Your task to perform on an android device: Set the phone to "Do not disturb". Image 0: 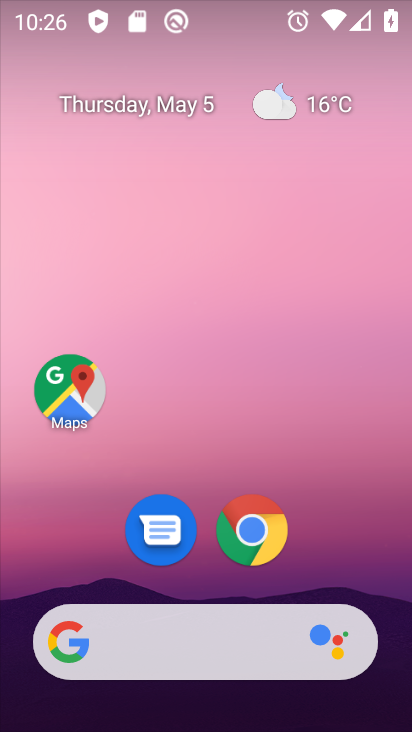
Step 0: drag from (360, 550) to (90, 4)
Your task to perform on an android device: Set the phone to "Do not disturb". Image 1: 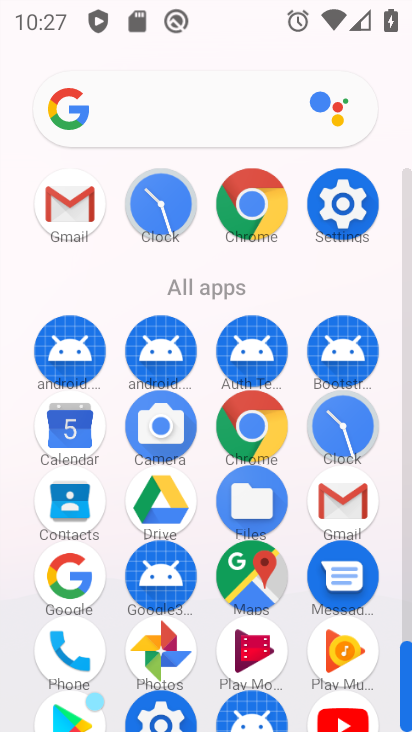
Step 1: click (348, 201)
Your task to perform on an android device: Set the phone to "Do not disturb". Image 2: 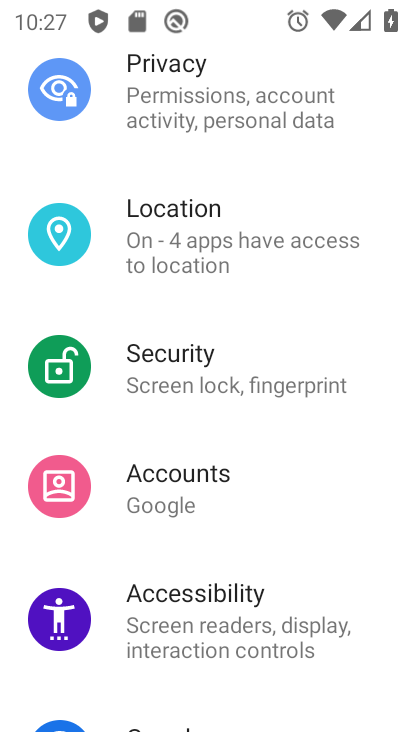
Step 2: drag from (257, 600) to (207, 189)
Your task to perform on an android device: Set the phone to "Do not disturb". Image 3: 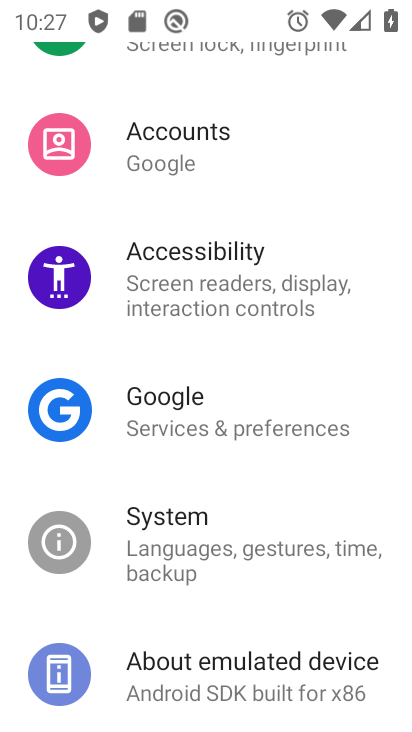
Step 3: drag from (193, 574) to (160, 132)
Your task to perform on an android device: Set the phone to "Do not disturb". Image 4: 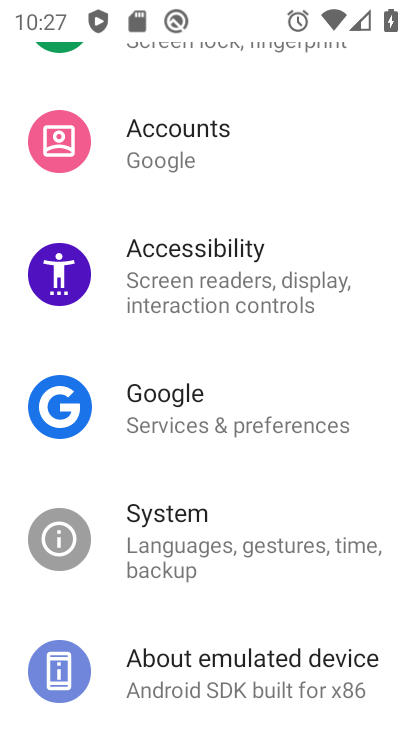
Step 4: drag from (179, 284) to (198, 599)
Your task to perform on an android device: Set the phone to "Do not disturb". Image 5: 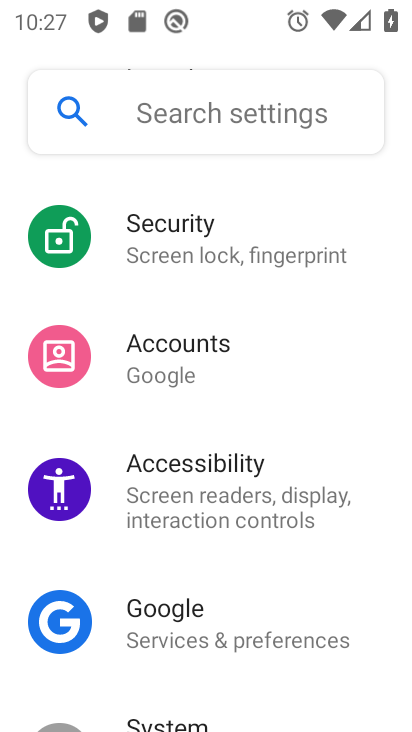
Step 5: drag from (267, 241) to (259, 628)
Your task to perform on an android device: Set the phone to "Do not disturb". Image 6: 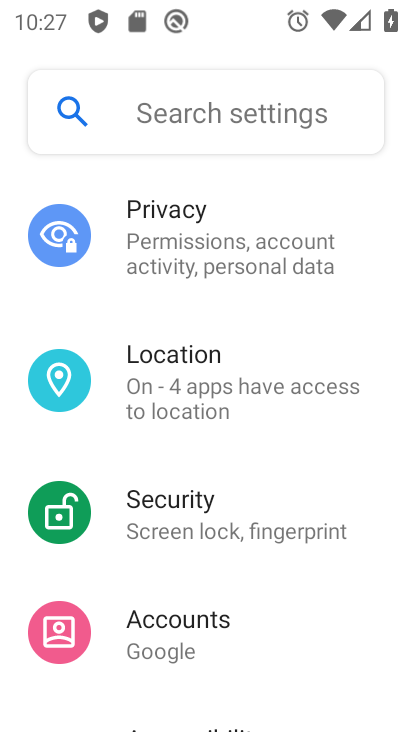
Step 6: drag from (251, 251) to (281, 636)
Your task to perform on an android device: Set the phone to "Do not disturb". Image 7: 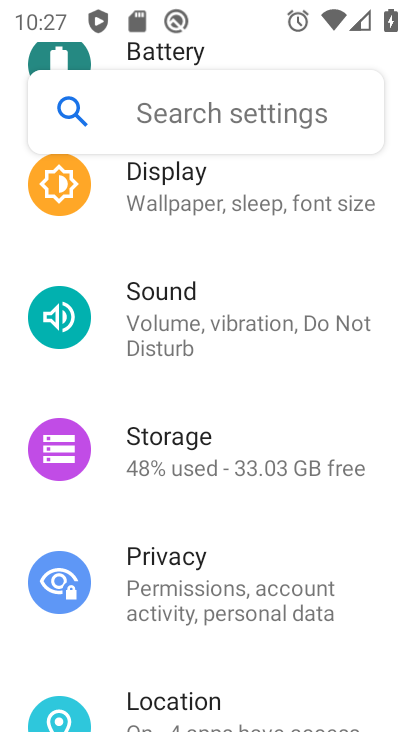
Step 7: drag from (297, 263) to (310, 564)
Your task to perform on an android device: Set the phone to "Do not disturb". Image 8: 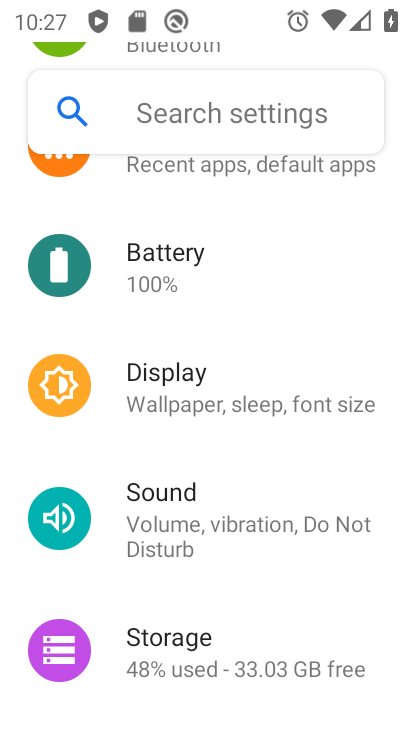
Step 8: click (186, 531)
Your task to perform on an android device: Set the phone to "Do not disturb". Image 9: 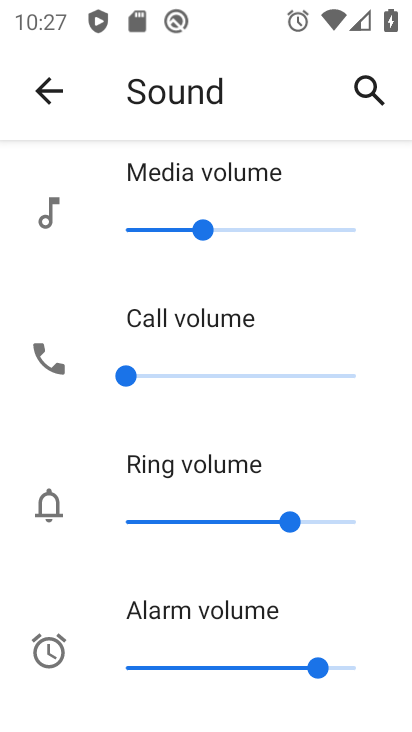
Step 9: drag from (249, 447) to (276, 111)
Your task to perform on an android device: Set the phone to "Do not disturb". Image 10: 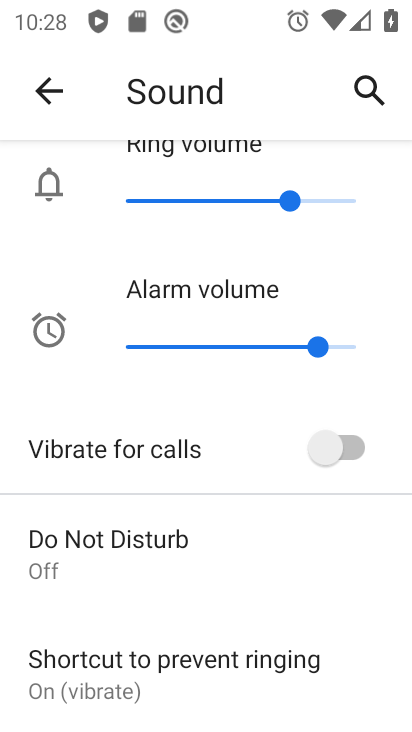
Step 10: drag from (269, 622) to (283, 306)
Your task to perform on an android device: Set the phone to "Do not disturb". Image 11: 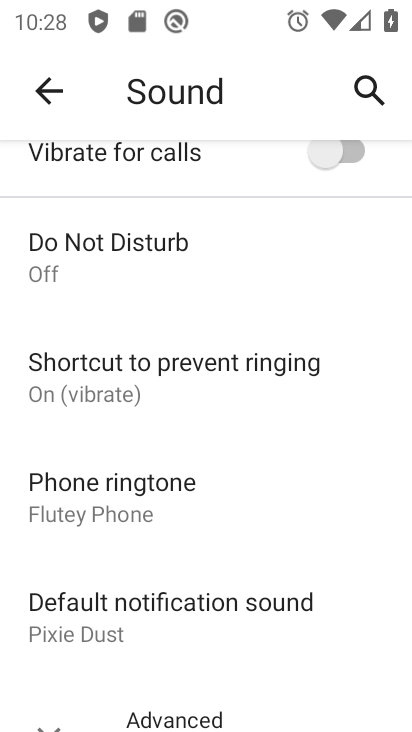
Step 11: click (100, 267)
Your task to perform on an android device: Set the phone to "Do not disturb". Image 12: 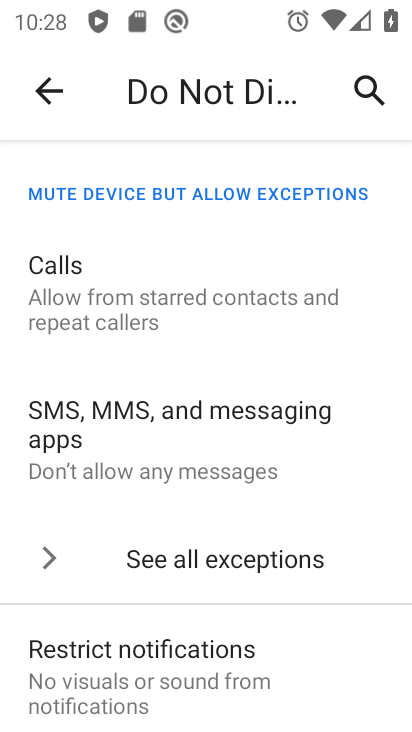
Step 12: drag from (229, 648) to (192, 194)
Your task to perform on an android device: Set the phone to "Do not disturb". Image 13: 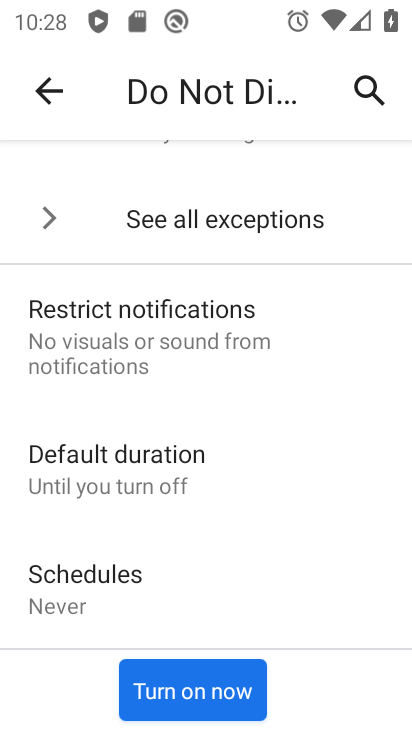
Step 13: click (216, 685)
Your task to perform on an android device: Set the phone to "Do not disturb". Image 14: 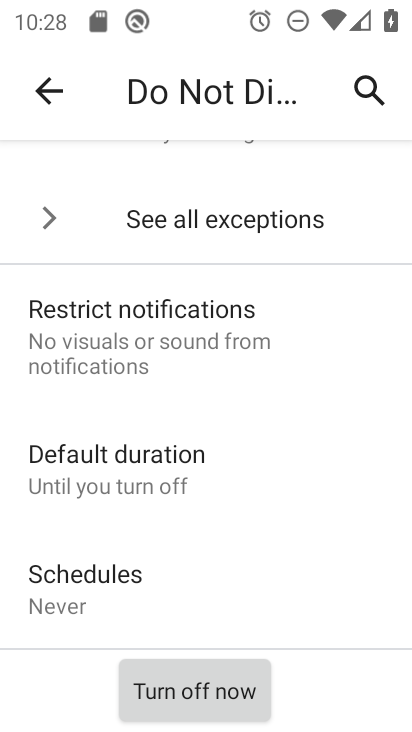
Step 14: task complete